Your task to perform on an android device: Show the shopping cart on ebay.com. Add logitech g pro to the cart on ebay.com, then select checkout. Image 0: 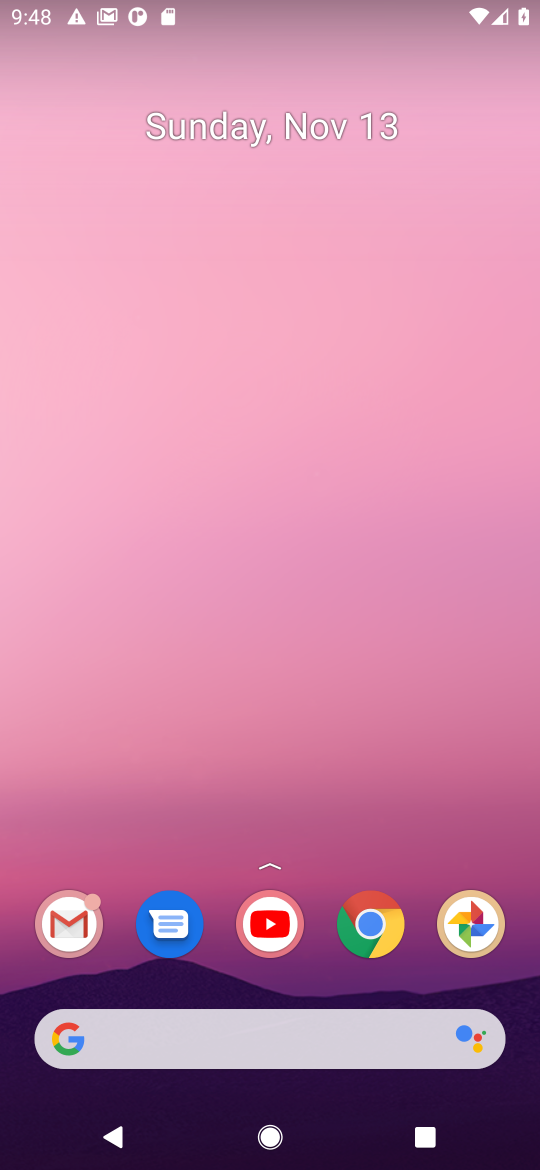
Step 0: click (377, 931)
Your task to perform on an android device: Show the shopping cart on ebay.com. Add logitech g pro to the cart on ebay.com, then select checkout. Image 1: 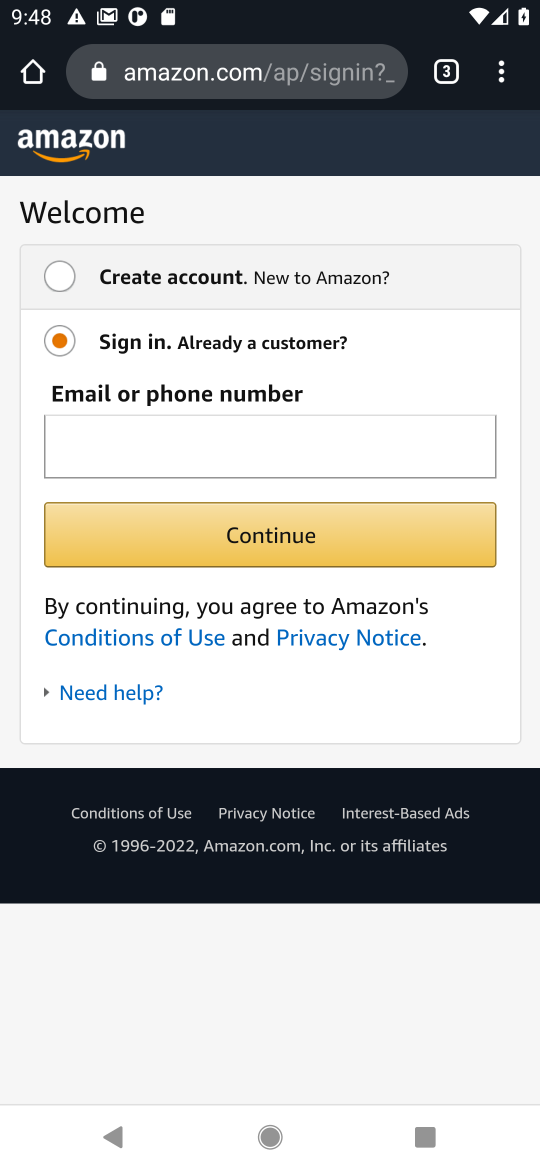
Step 1: click (239, 81)
Your task to perform on an android device: Show the shopping cart on ebay.com. Add logitech g pro to the cart on ebay.com, then select checkout. Image 2: 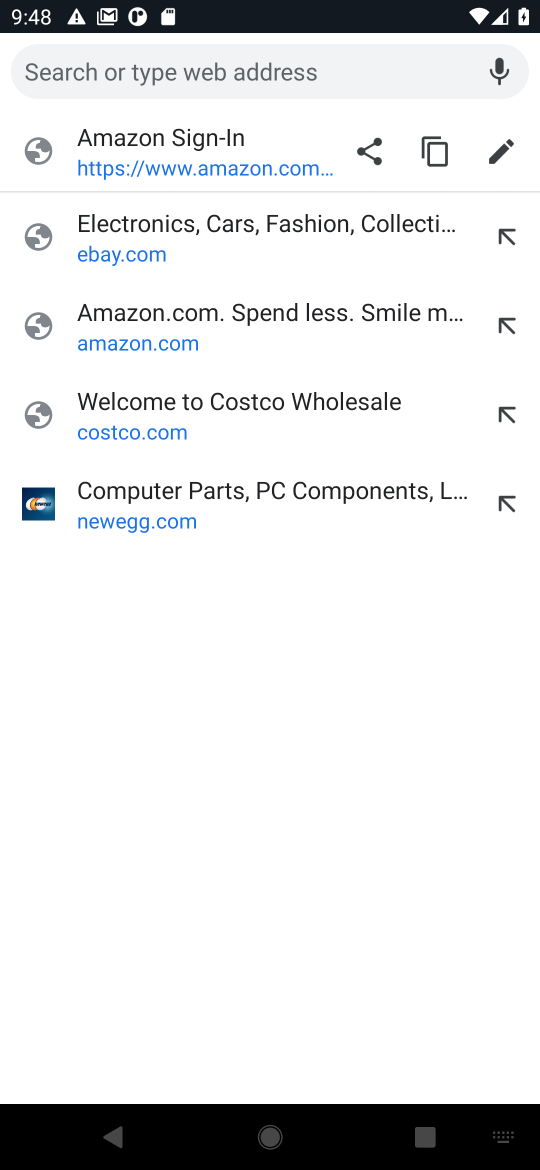
Step 2: click (114, 228)
Your task to perform on an android device: Show the shopping cart on ebay.com. Add logitech g pro to the cart on ebay.com, then select checkout. Image 3: 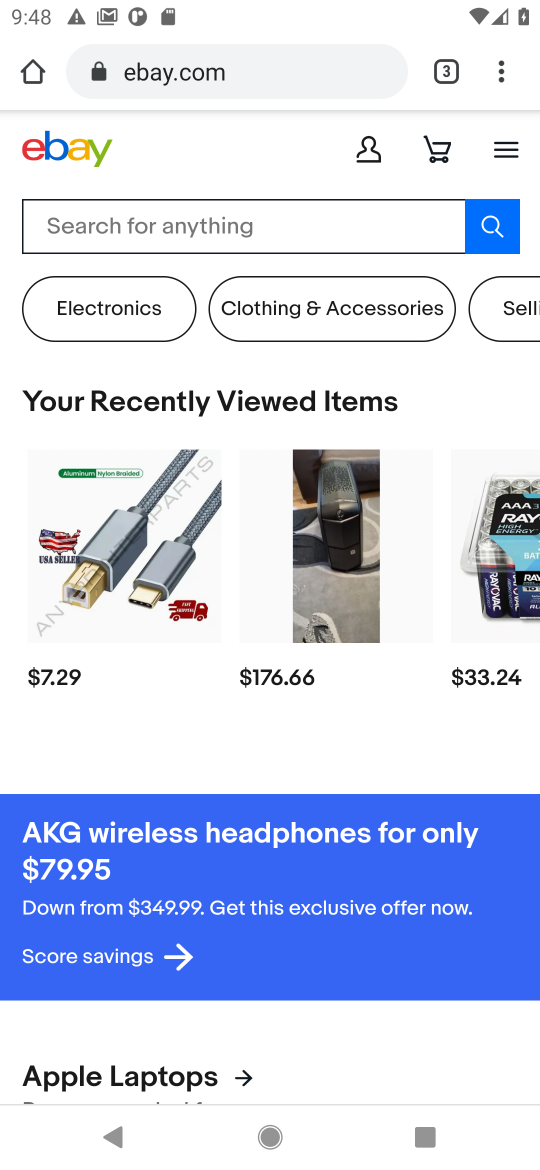
Step 3: click (441, 151)
Your task to perform on an android device: Show the shopping cart on ebay.com. Add logitech g pro to the cart on ebay.com, then select checkout. Image 4: 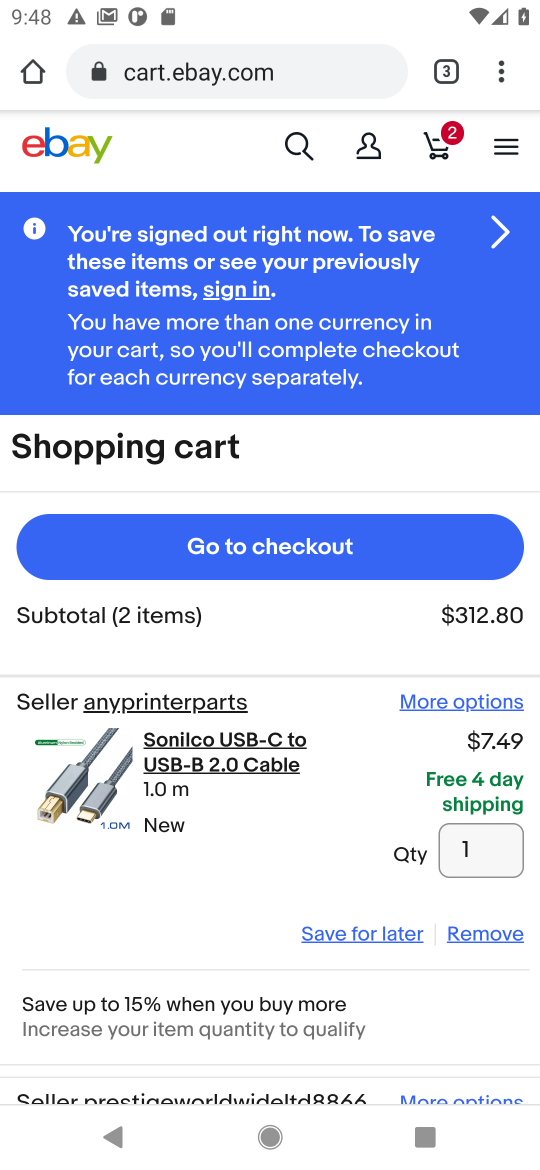
Step 4: click (286, 142)
Your task to perform on an android device: Show the shopping cart on ebay.com. Add logitech g pro to the cart on ebay.com, then select checkout. Image 5: 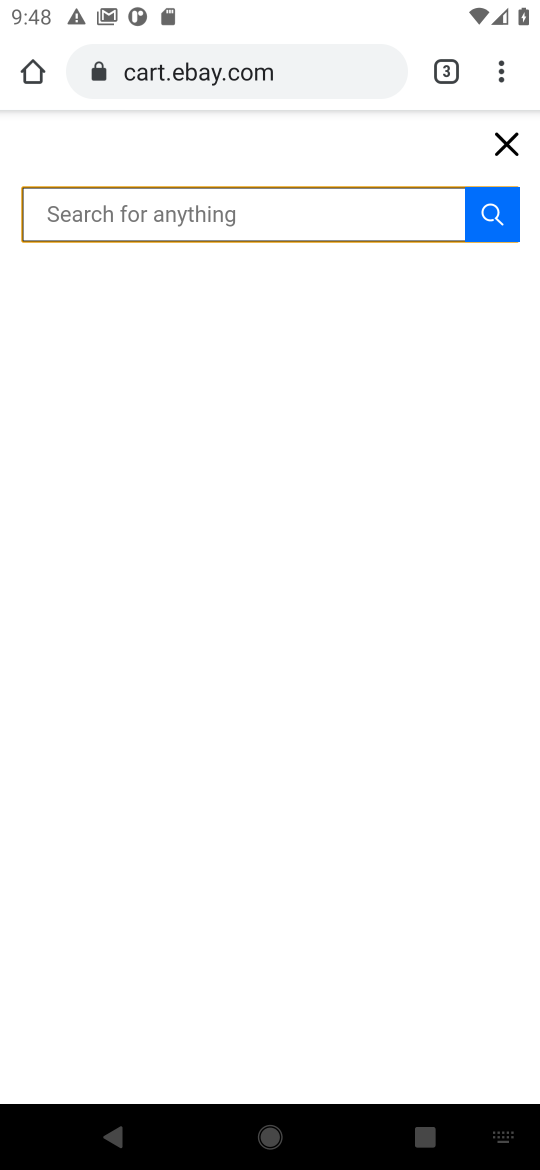
Step 5: type "logitech g pro"
Your task to perform on an android device: Show the shopping cart on ebay.com. Add logitech g pro to the cart on ebay.com, then select checkout. Image 6: 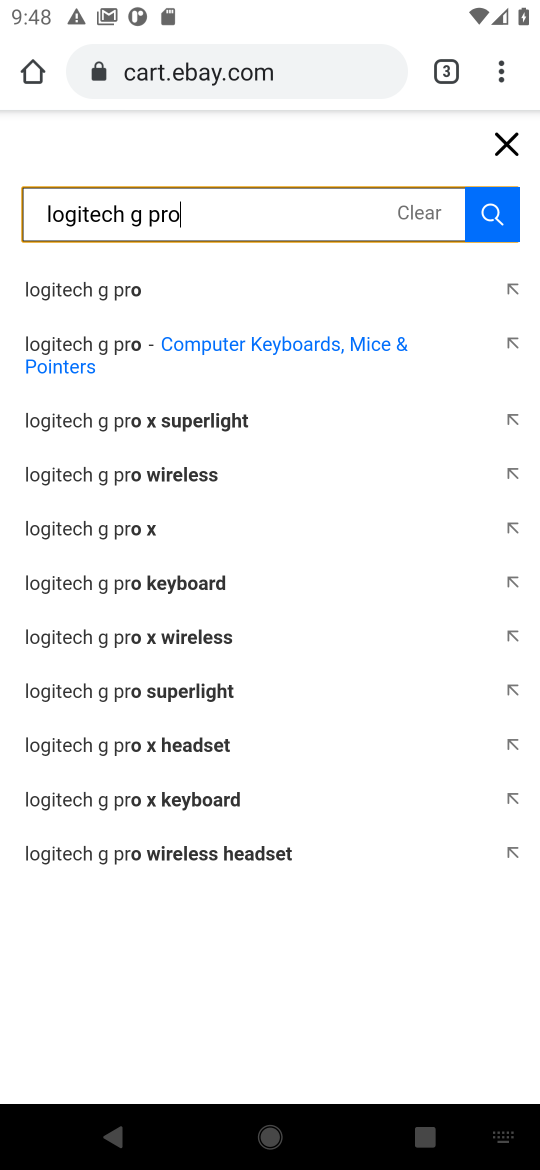
Step 6: click (67, 312)
Your task to perform on an android device: Show the shopping cart on ebay.com. Add logitech g pro to the cart on ebay.com, then select checkout. Image 7: 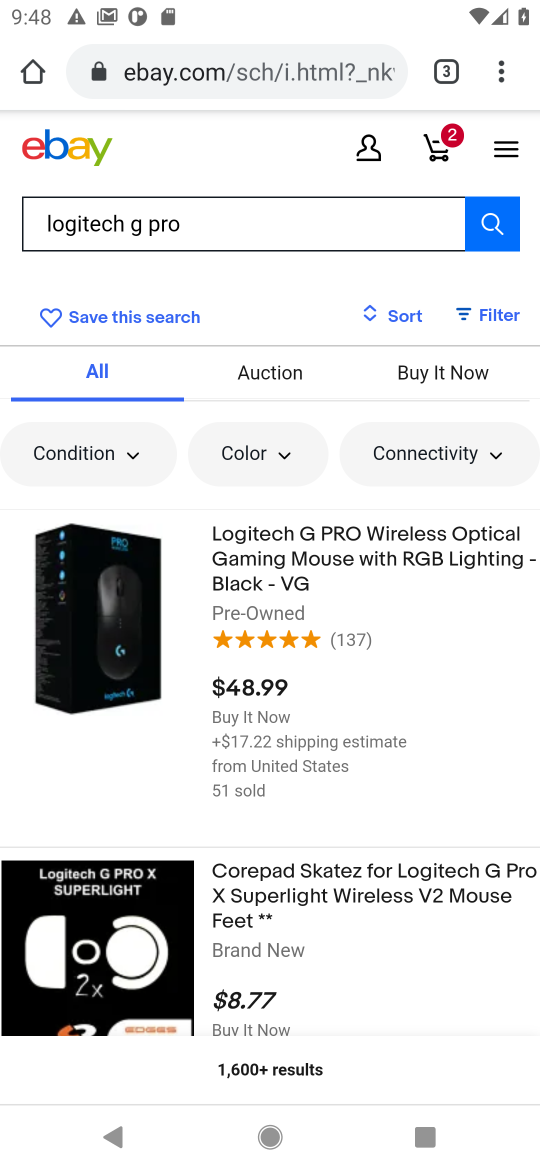
Step 7: click (87, 633)
Your task to perform on an android device: Show the shopping cart on ebay.com. Add logitech g pro to the cart on ebay.com, then select checkout. Image 8: 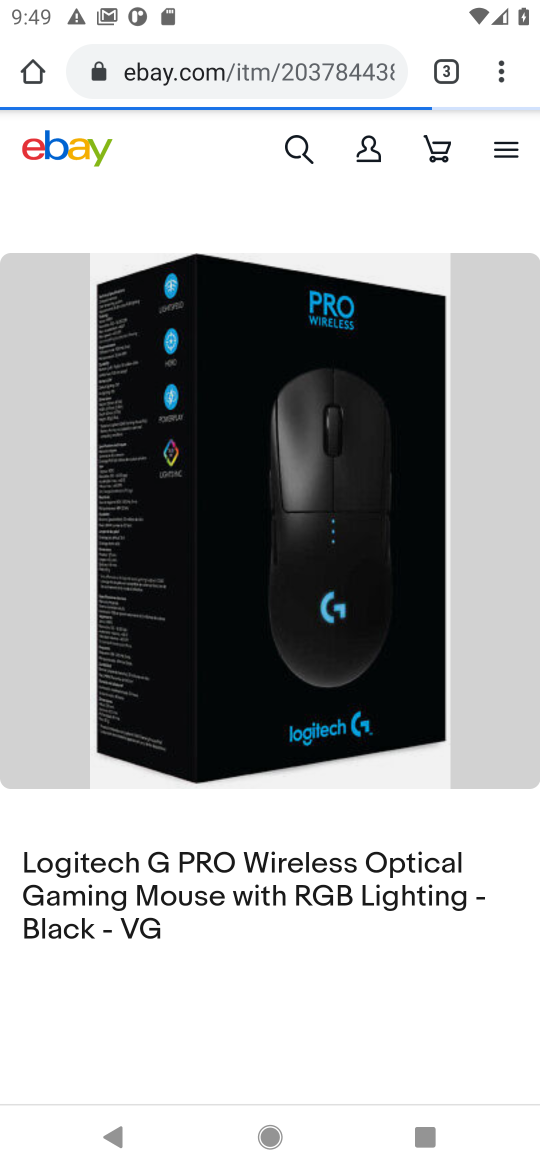
Step 8: drag from (182, 818) to (231, 153)
Your task to perform on an android device: Show the shopping cart on ebay.com. Add logitech g pro to the cart on ebay.com, then select checkout. Image 9: 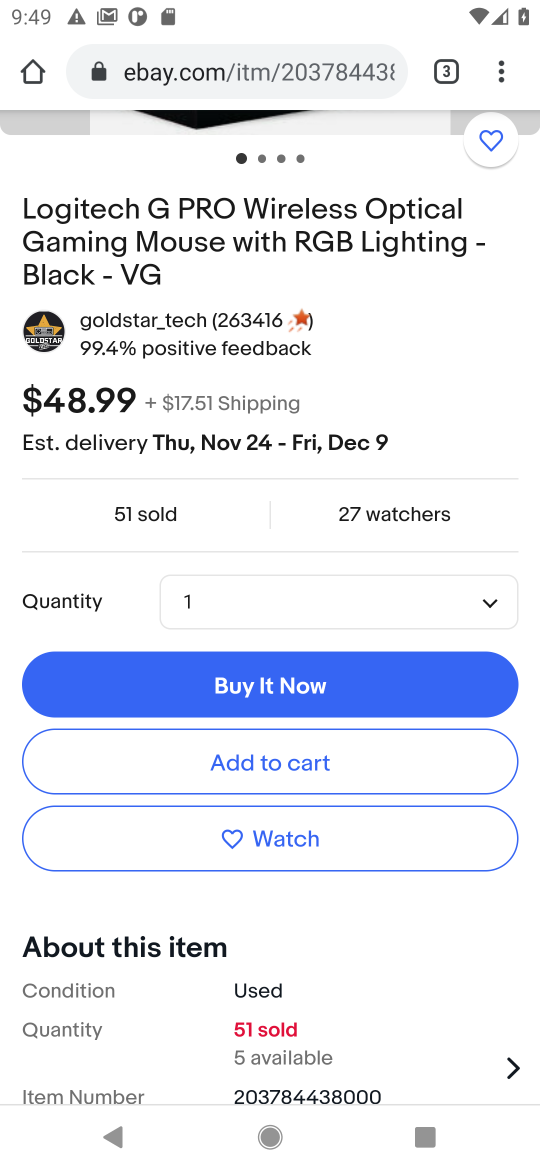
Step 9: click (272, 770)
Your task to perform on an android device: Show the shopping cart on ebay.com. Add logitech g pro to the cart on ebay.com, then select checkout. Image 10: 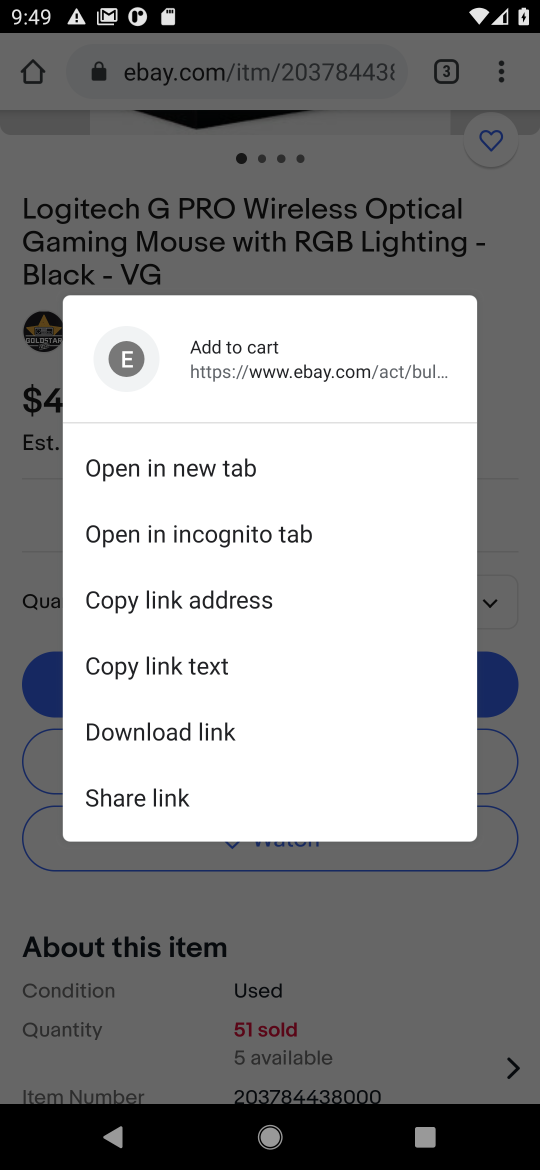
Step 10: click (499, 756)
Your task to perform on an android device: Show the shopping cart on ebay.com. Add logitech g pro to the cart on ebay.com, then select checkout. Image 11: 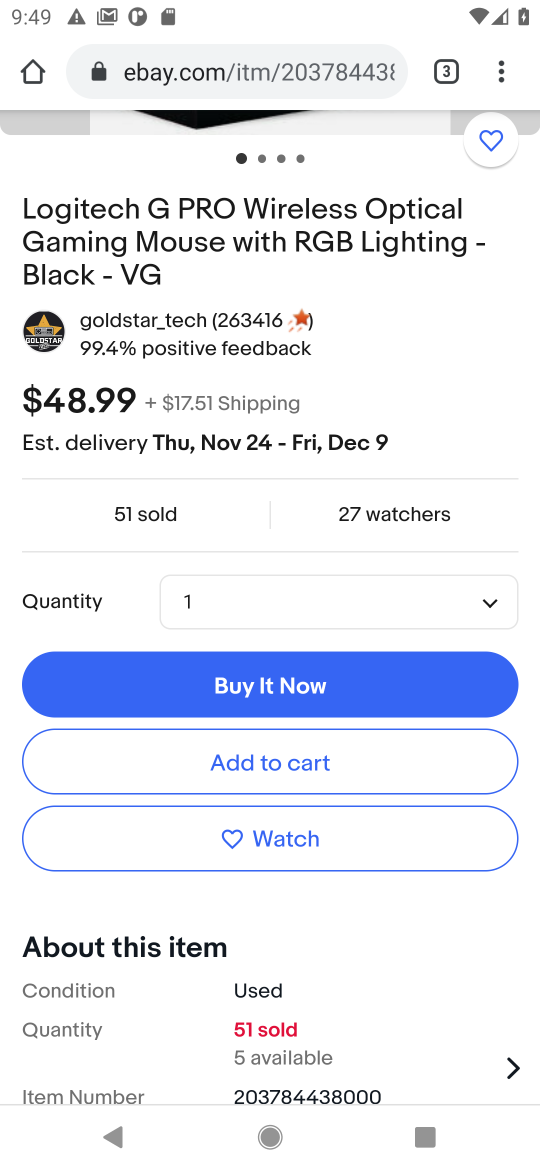
Step 11: click (274, 758)
Your task to perform on an android device: Show the shopping cart on ebay.com. Add logitech g pro to the cart on ebay.com, then select checkout. Image 12: 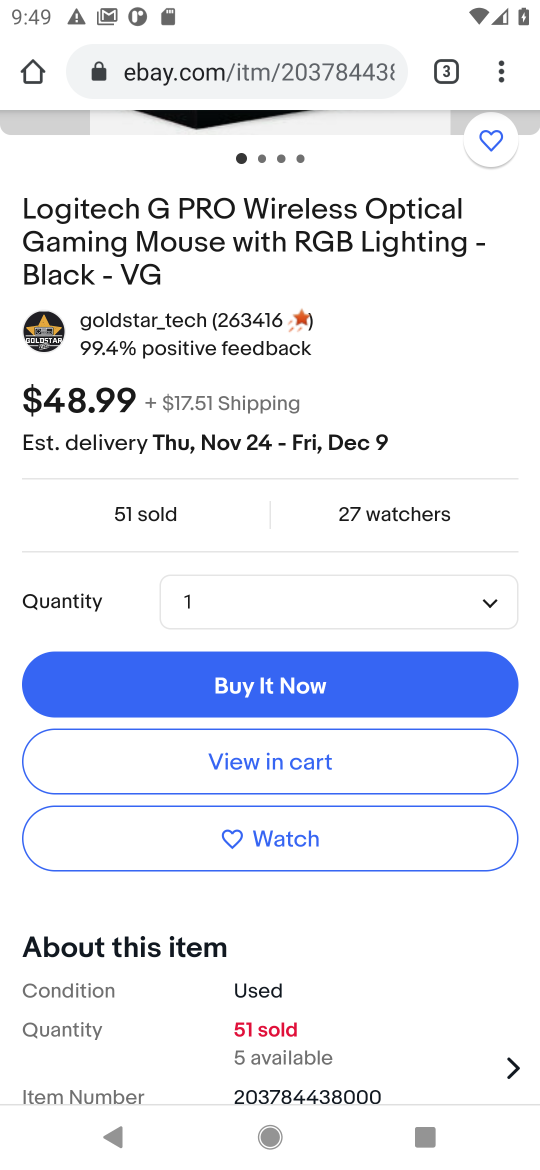
Step 12: click (274, 758)
Your task to perform on an android device: Show the shopping cart on ebay.com. Add logitech g pro to the cart on ebay.com, then select checkout. Image 13: 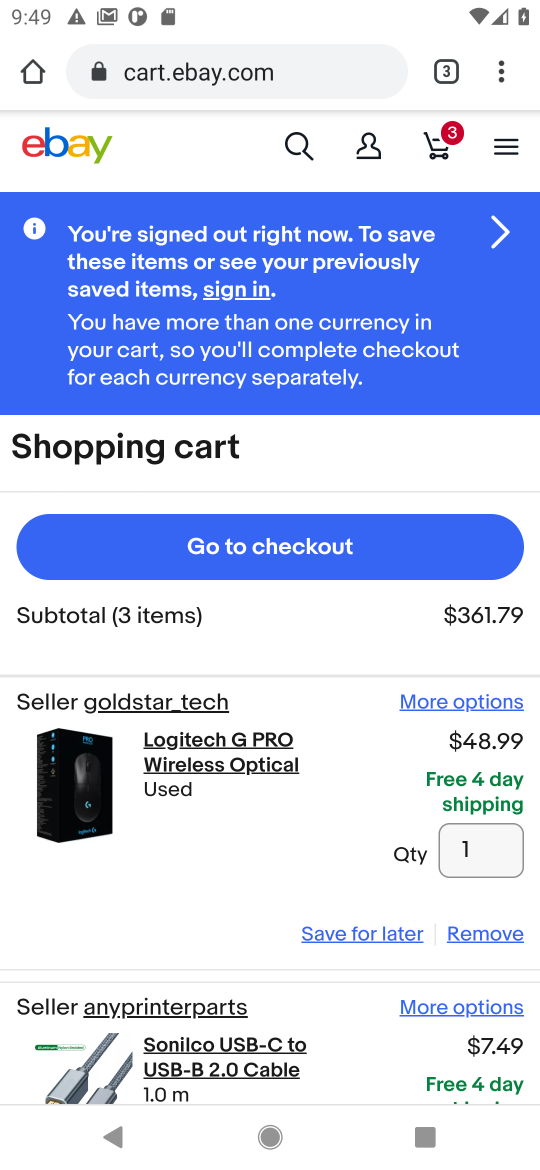
Step 13: click (245, 562)
Your task to perform on an android device: Show the shopping cart on ebay.com. Add logitech g pro to the cart on ebay.com, then select checkout. Image 14: 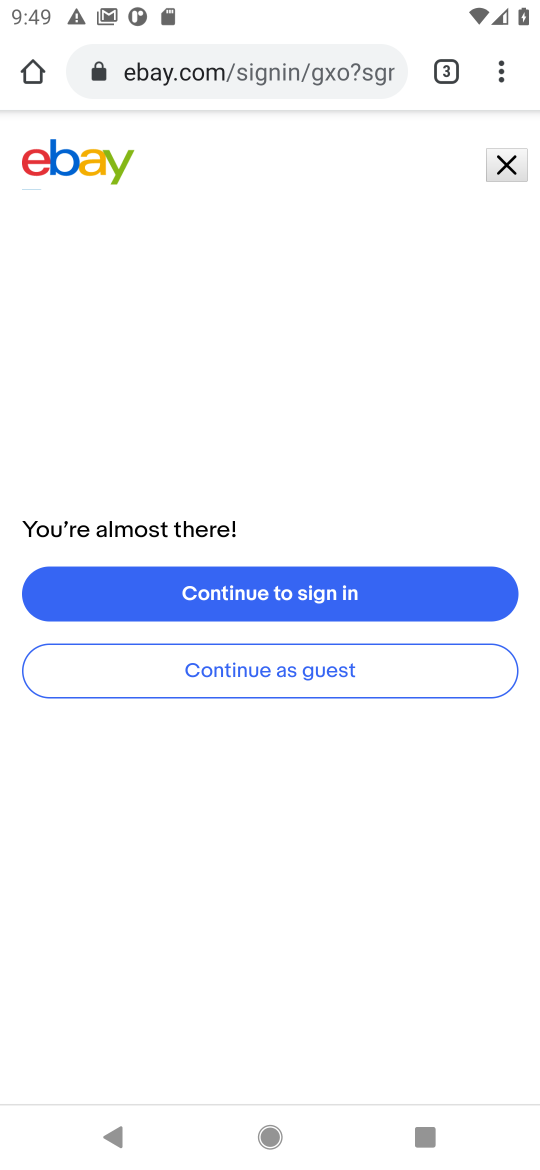
Step 14: task complete